Your task to perform on an android device: add a contact Image 0: 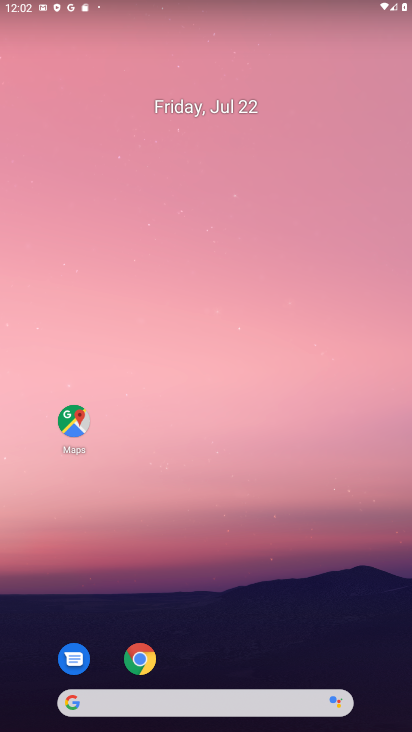
Step 0: drag from (282, 632) to (276, 0)
Your task to perform on an android device: add a contact Image 1: 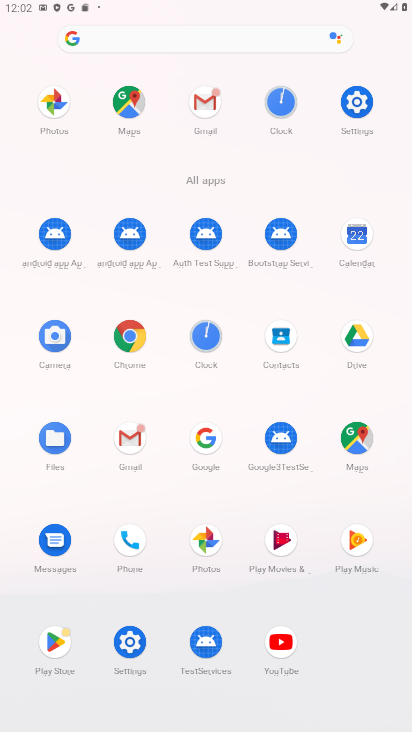
Step 1: drag from (269, 635) to (338, 91)
Your task to perform on an android device: add a contact Image 2: 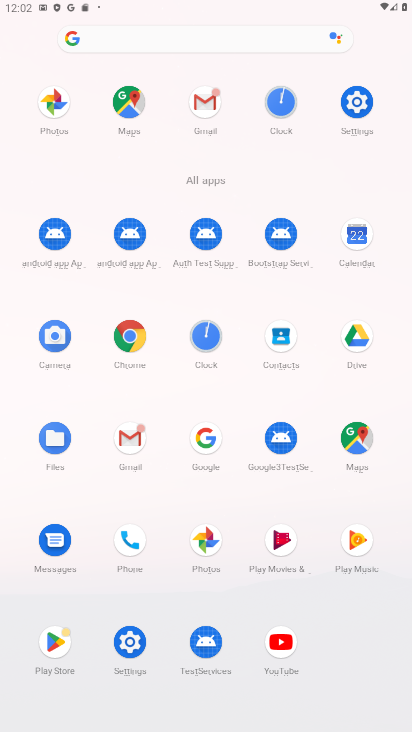
Step 2: click (121, 538)
Your task to perform on an android device: add a contact Image 3: 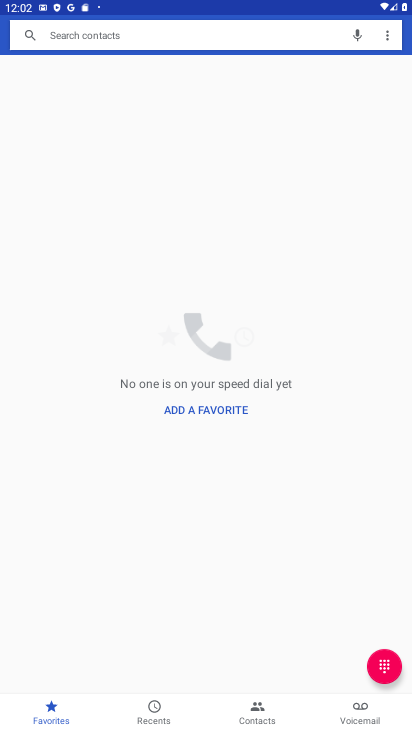
Step 3: click (252, 725)
Your task to perform on an android device: add a contact Image 4: 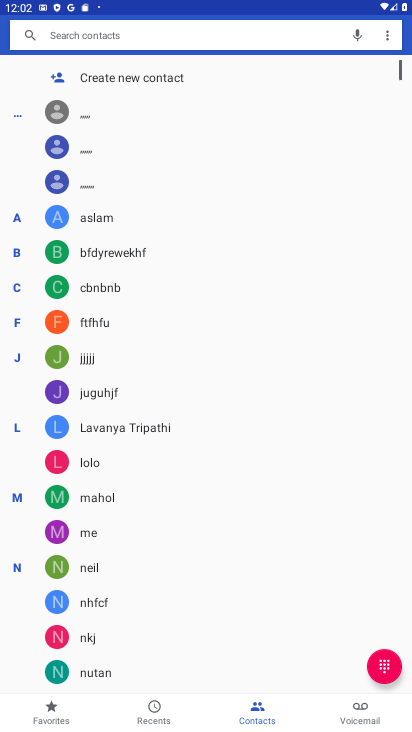
Step 4: click (129, 77)
Your task to perform on an android device: add a contact Image 5: 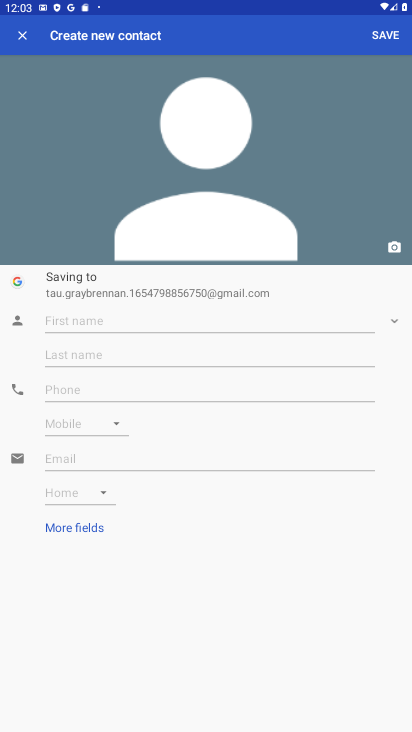
Step 5: type "tjhjh"
Your task to perform on an android device: add a contact Image 6: 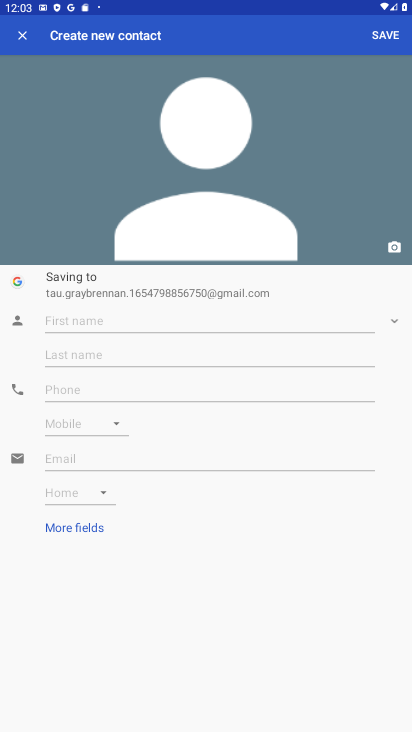
Step 6: click (112, 389)
Your task to perform on an android device: add a contact Image 7: 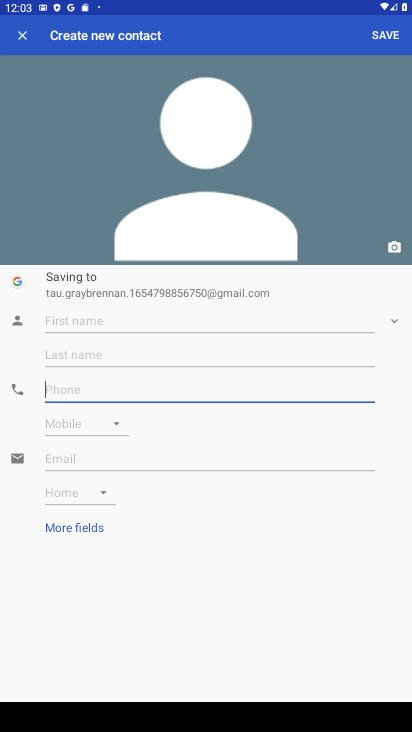
Step 7: type "56765456"
Your task to perform on an android device: add a contact Image 8: 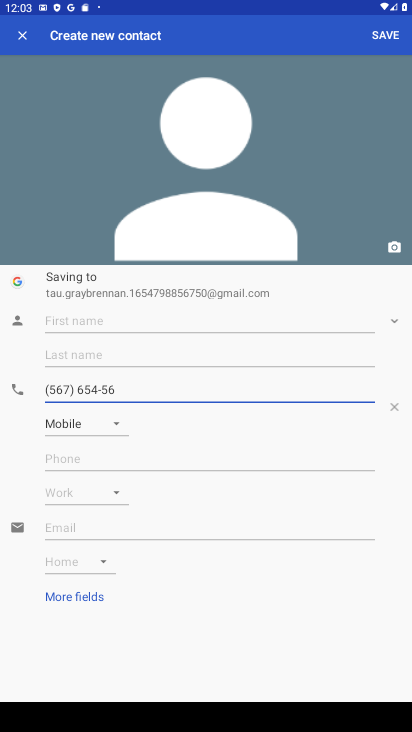
Step 8: click (377, 41)
Your task to perform on an android device: add a contact Image 9: 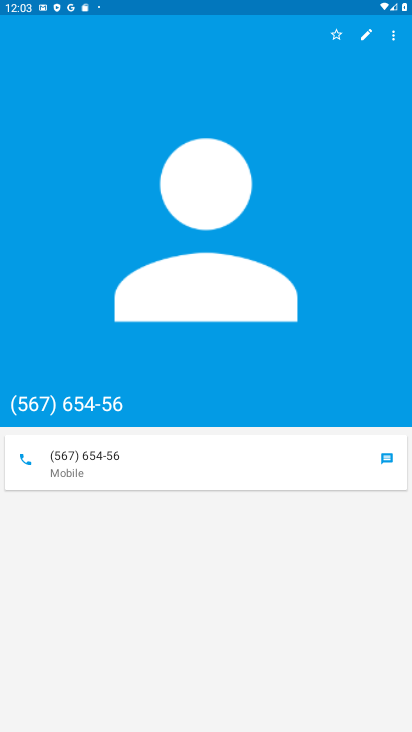
Step 9: task complete